Your task to perform on an android device: Go to Google Image 0: 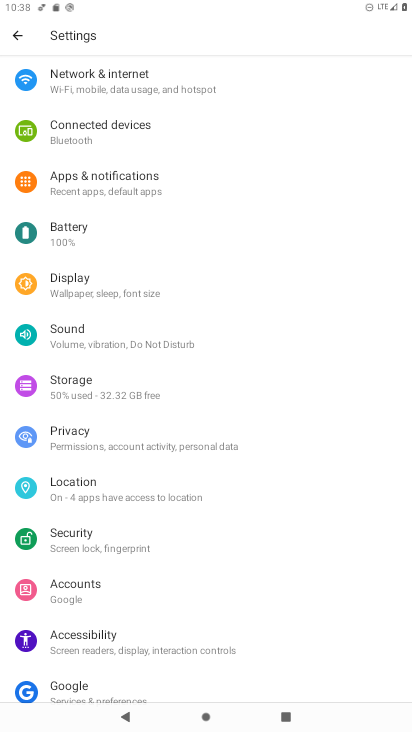
Step 0: press home button
Your task to perform on an android device: Go to Google Image 1: 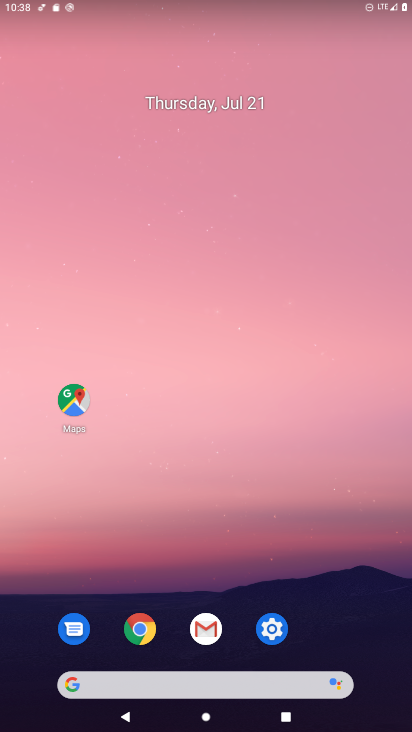
Step 1: click (111, 679)
Your task to perform on an android device: Go to Google Image 2: 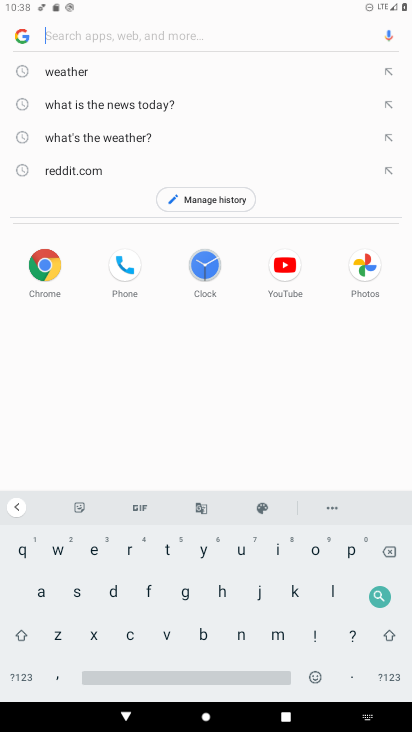
Step 2: click (24, 38)
Your task to perform on an android device: Go to Google Image 3: 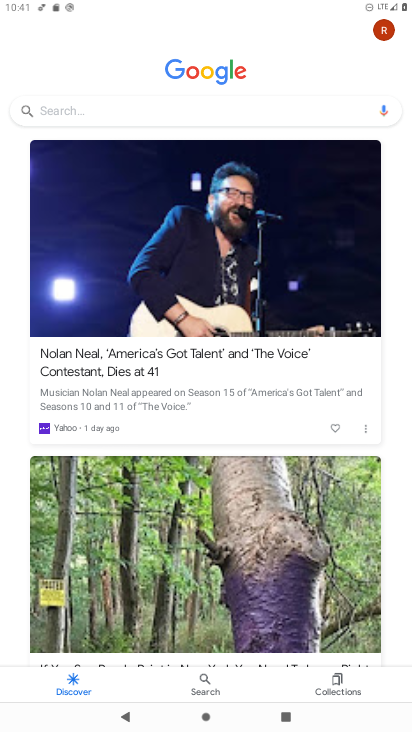
Step 3: task complete